Your task to perform on an android device: Open Yahoo.com Image 0: 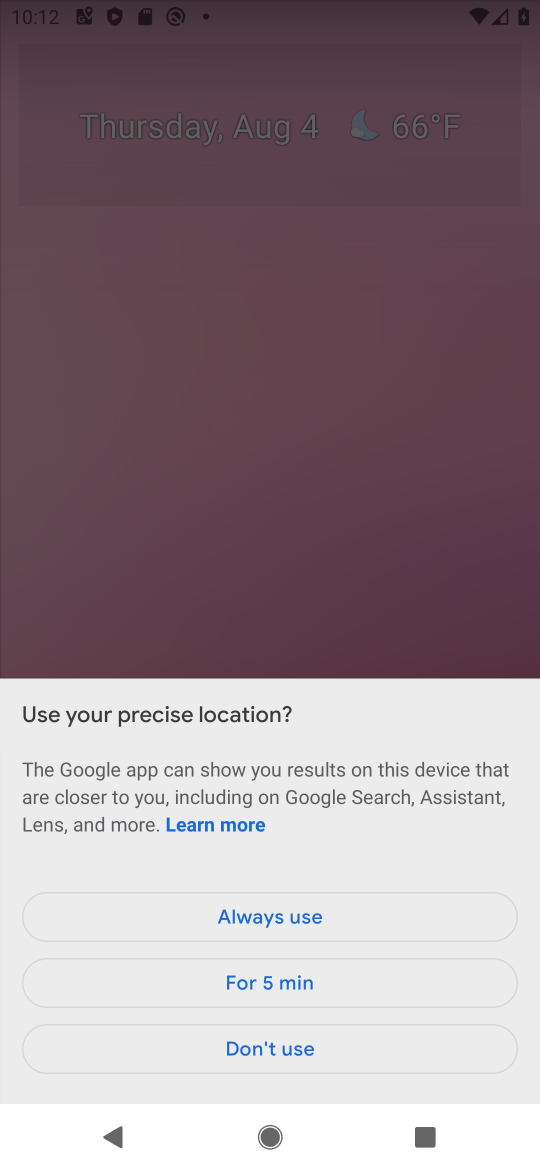
Step 0: press home button
Your task to perform on an android device: Open Yahoo.com Image 1: 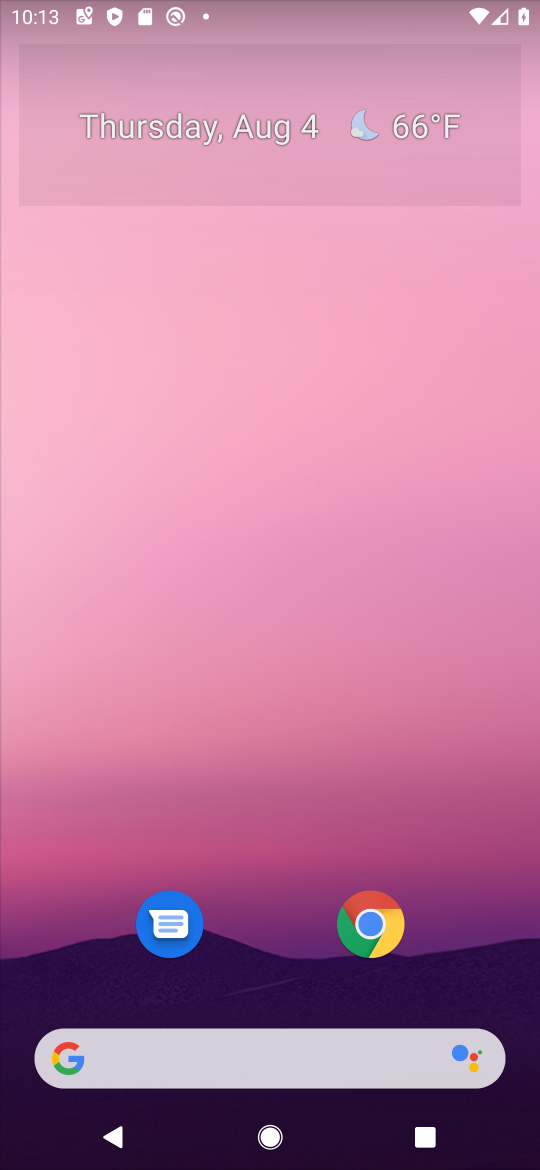
Step 1: click (371, 1077)
Your task to perform on an android device: Open Yahoo.com Image 2: 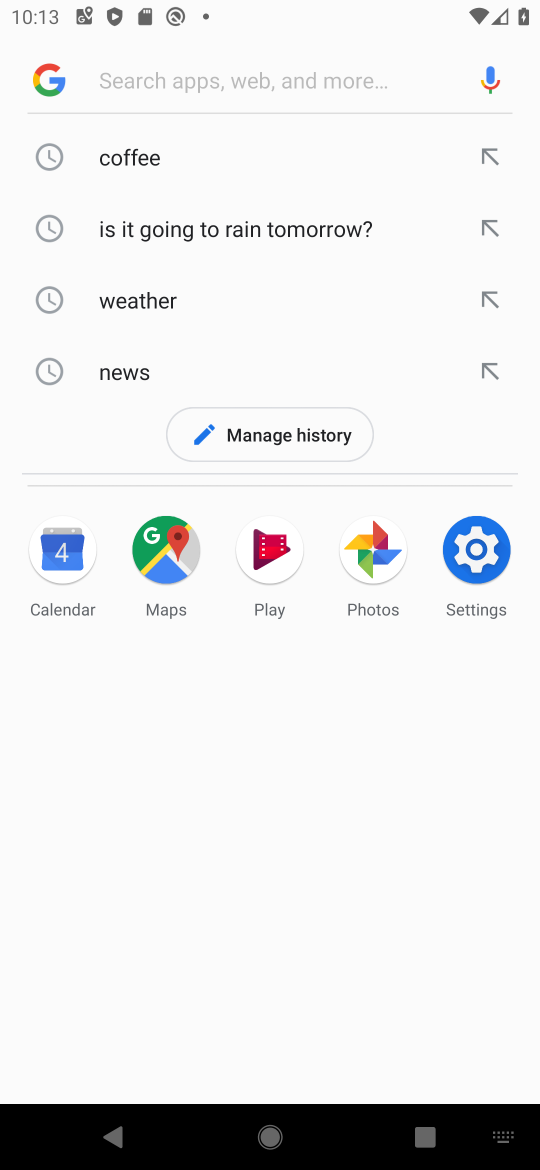
Step 2: press enter
Your task to perform on an android device: Open Yahoo.com Image 3: 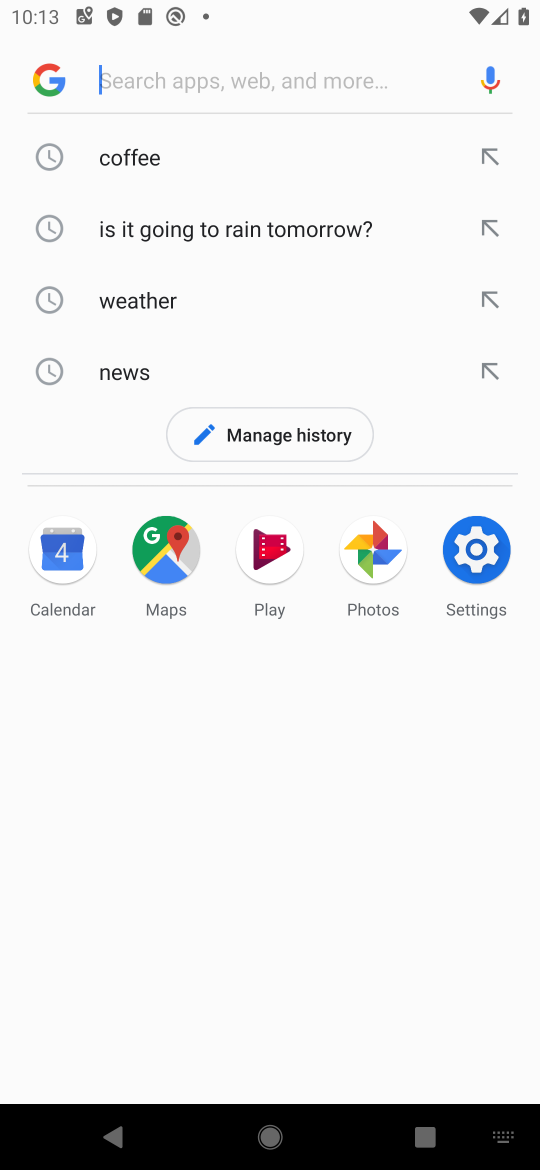
Step 3: type "Yahoo"
Your task to perform on an android device: Open Yahoo.com Image 4: 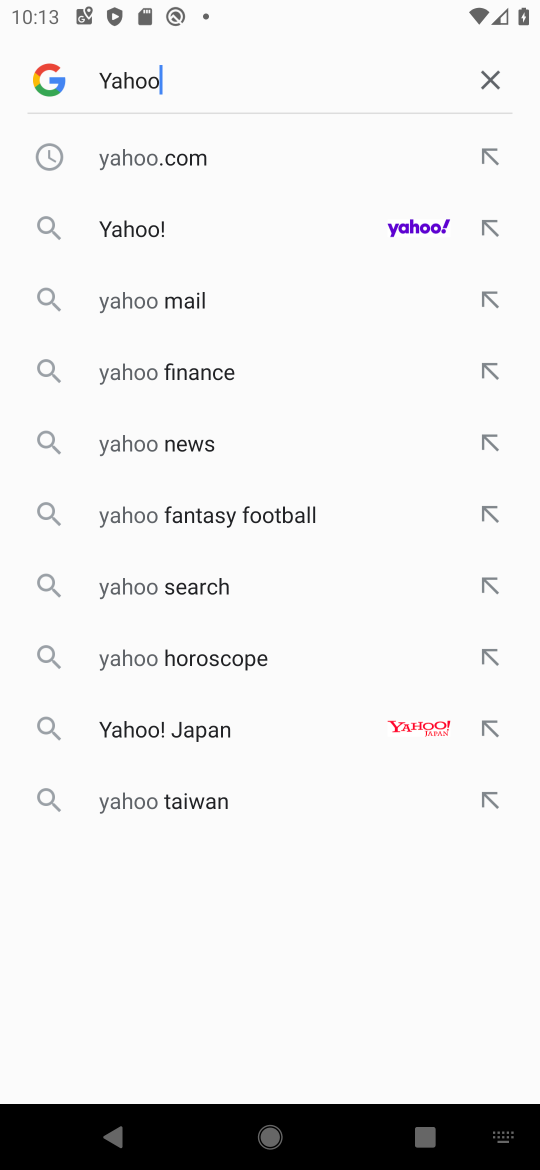
Step 4: press enter
Your task to perform on an android device: Open Yahoo.com Image 5: 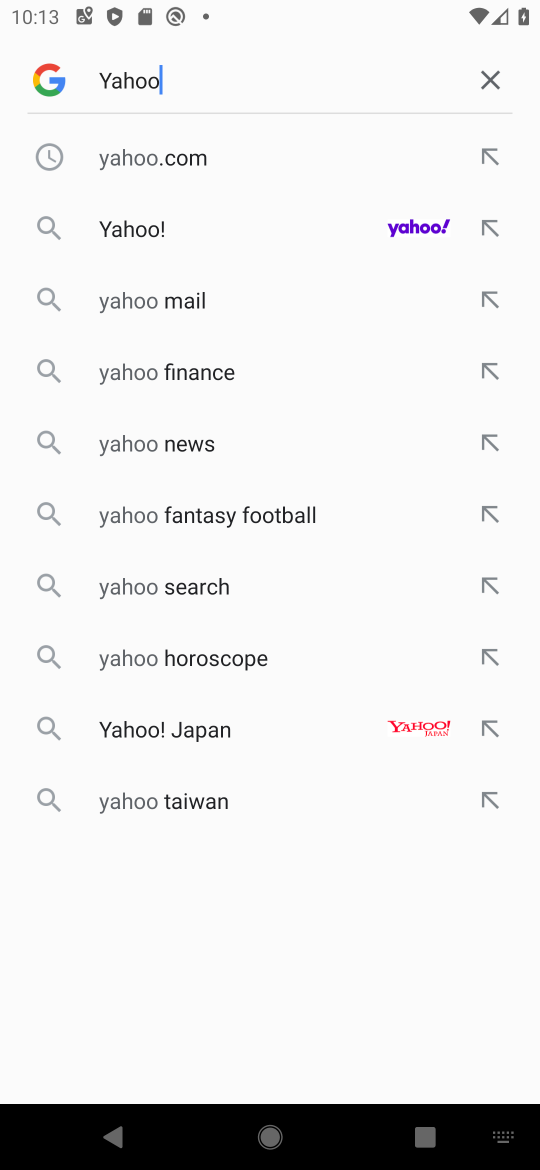
Step 5: type ".com"
Your task to perform on an android device: Open Yahoo.com Image 6: 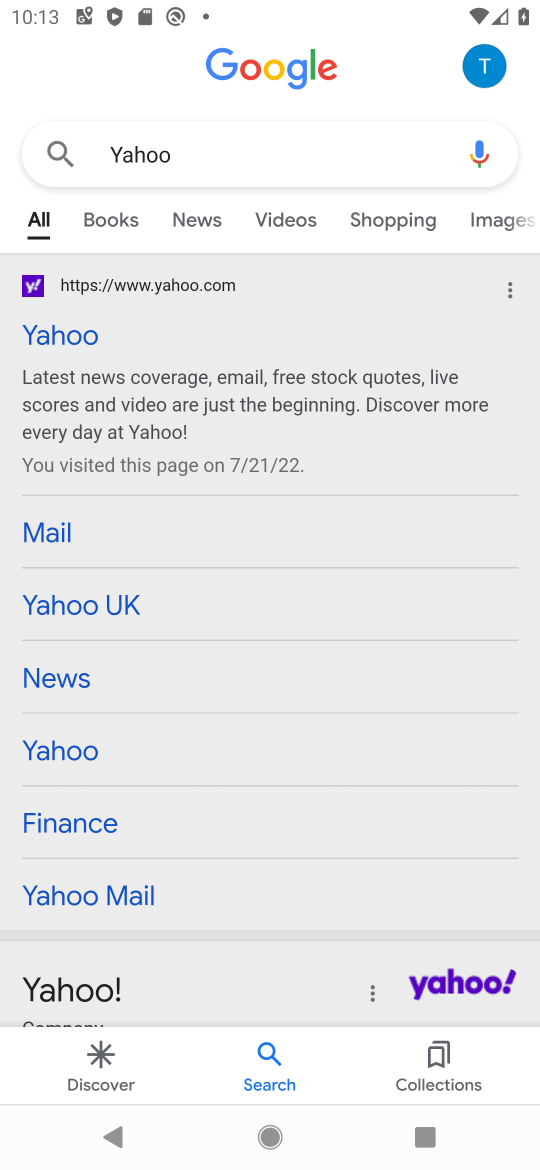
Step 6: click (81, 335)
Your task to perform on an android device: Open Yahoo.com Image 7: 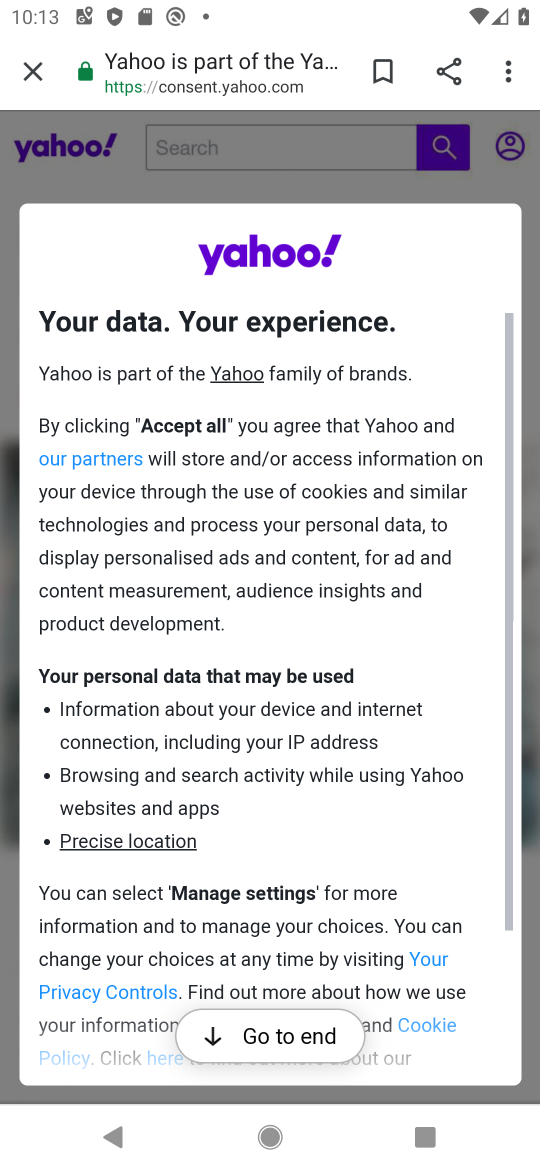
Step 7: task complete